Your task to perform on an android device: turn on location history Image 0: 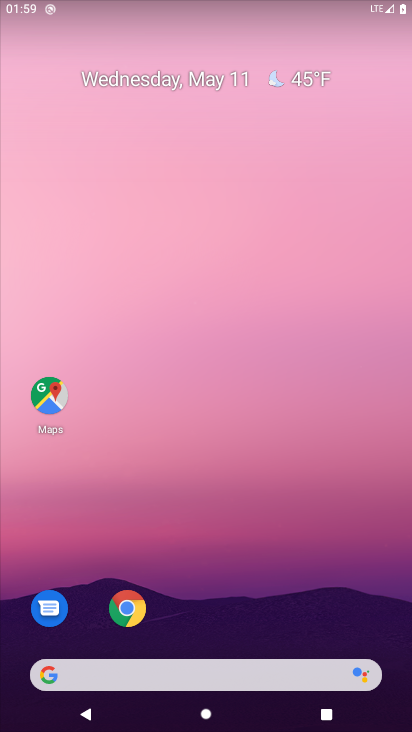
Step 0: drag from (203, 438) to (198, 63)
Your task to perform on an android device: turn on location history Image 1: 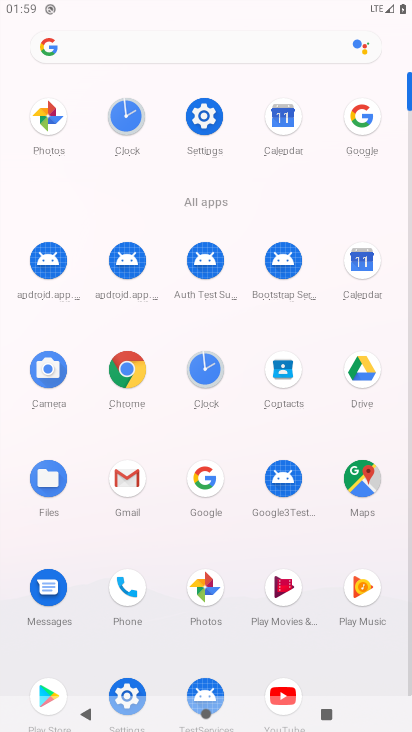
Step 1: click (125, 680)
Your task to perform on an android device: turn on location history Image 2: 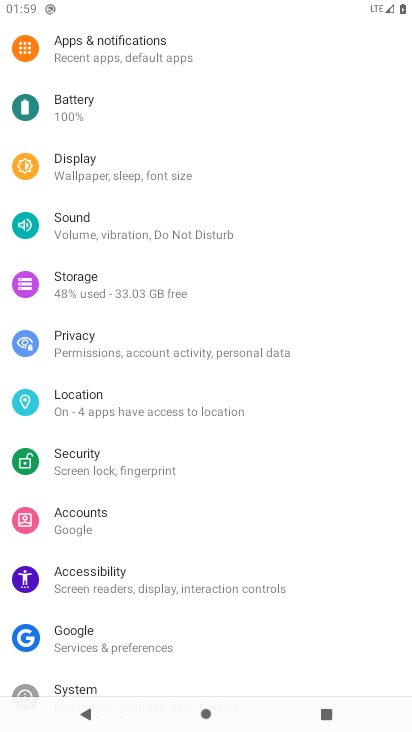
Step 2: click (103, 397)
Your task to perform on an android device: turn on location history Image 3: 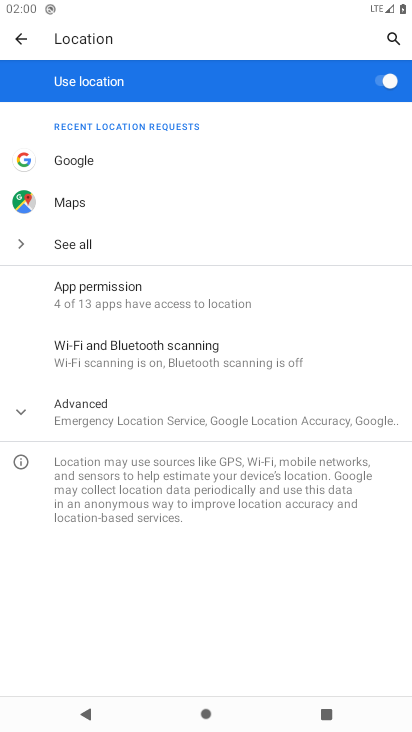
Step 3: click (88, 413)
Your task to perform on an android device: turn on location history Image 4: 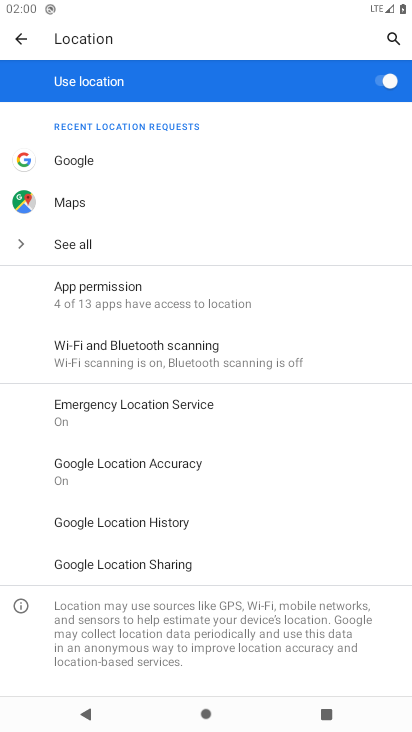
Step 4: click (115, 516)
Your task to perform on an android device: turn on location history Image 5: 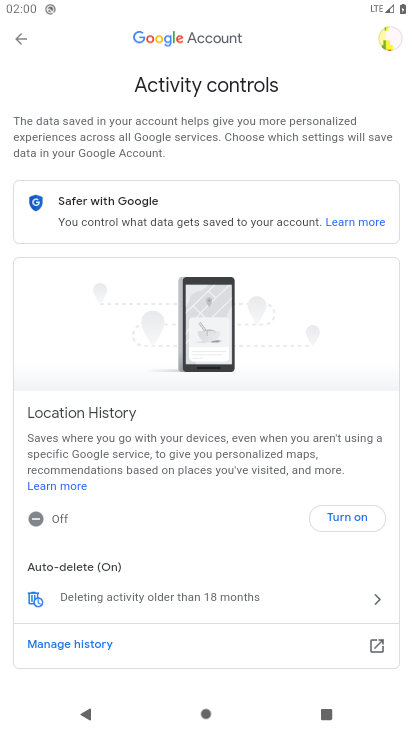
Step 5: drag from (206, 628) to (196, 213)
Your task to perform on an android device: turn on location history Image 6: 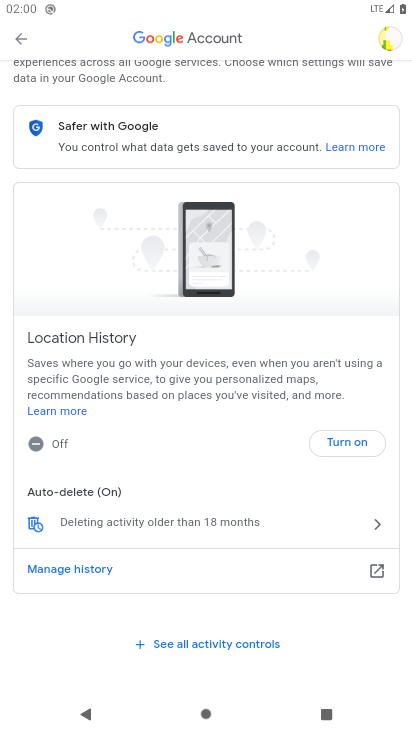
Step 6: click (355, 439)
Your task to perform on an android device: turn on location history Image 7: 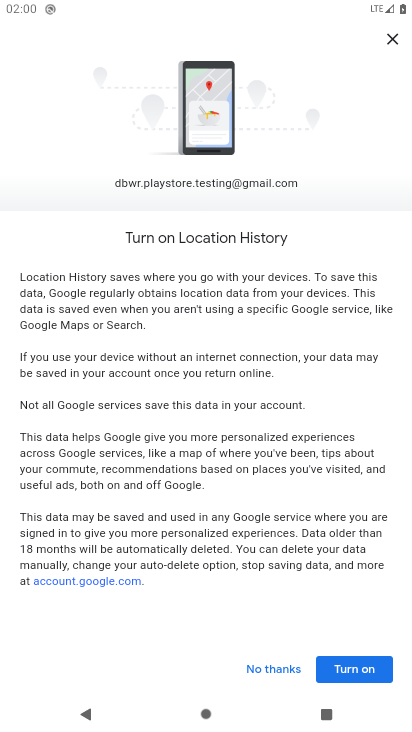
Step 7: click (347, 666)
Your task to perform on an android device: turn on location history Image 8: 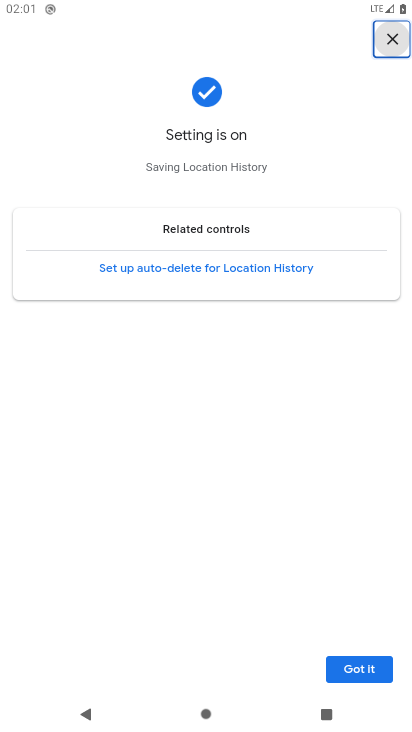
Step 8: task complete